Your task to perform on an android device: move a message to another label in the gmail app Image 0: 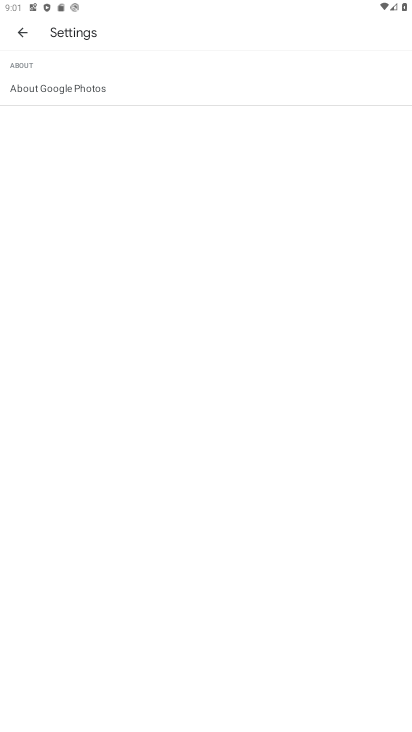
Step 0: press home button
Your task to perform on an android device: move a message to another label in the gmail app Image 1: 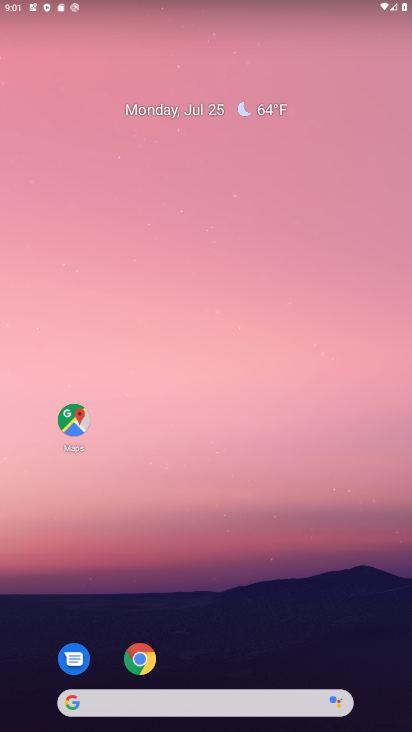
Step 1: drag from (320, 631) to (328, 98)
Your task to perform on an android device: move a message to another label in the gmail app Image 2: 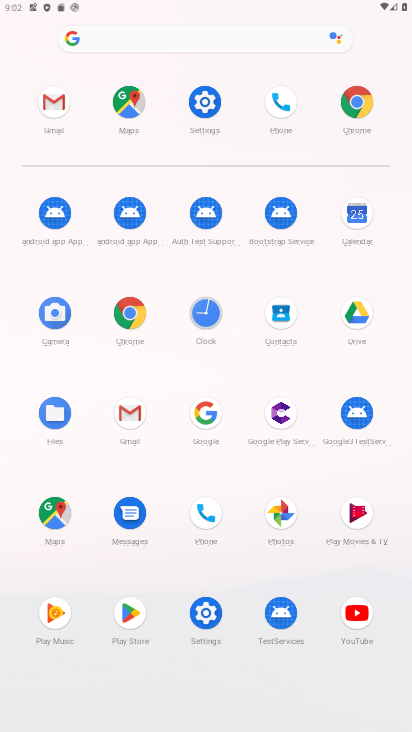
Step 2: click (132, 416)
Your task to perform on an android device: move a message to another label in the gmail app Image 3: 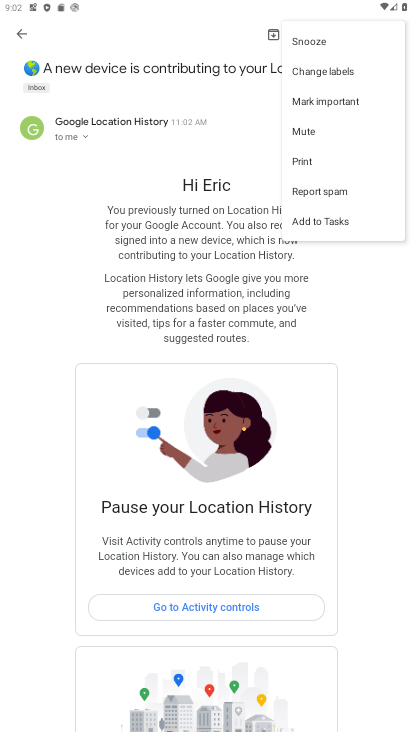
Step 3: click (70, 258)
Your task to perform on an android device: move a message to another label in the gmail app Image 4: 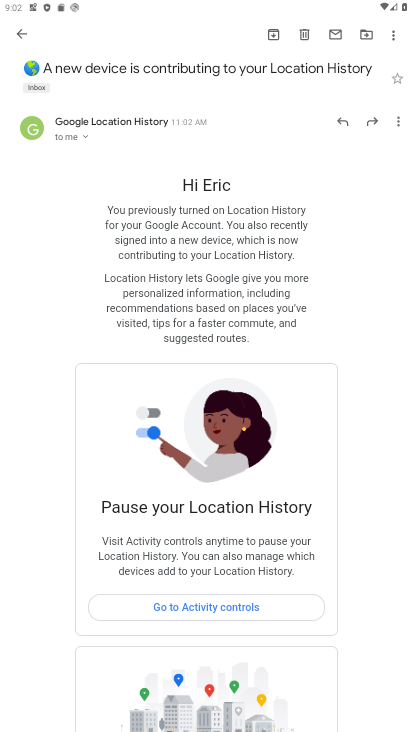
Step 4: click (17, 29)
Your task to perform on an android device: move a message to another label in the gmail app Image 5: 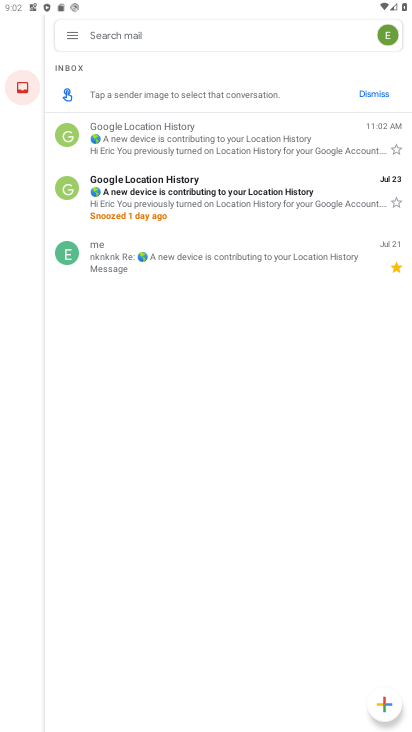
Step 5: click (140, 193)
Your task to perform on an android device: move a message to another label in the gmail app Image 6: 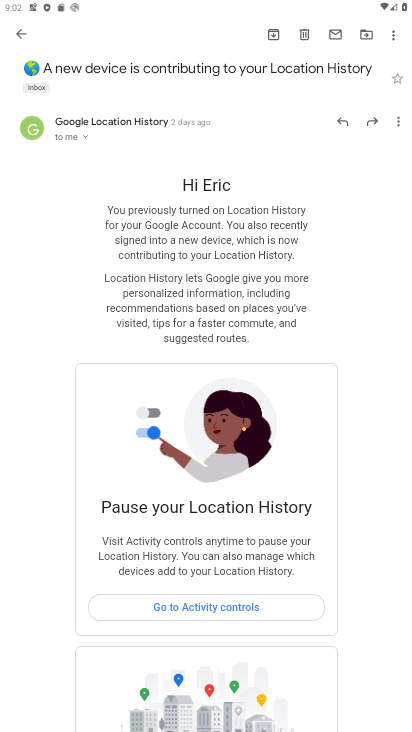
Step 6: click (395, 33)
Your task to perform on an android device: move a message to another label in the gmail app Image 7: 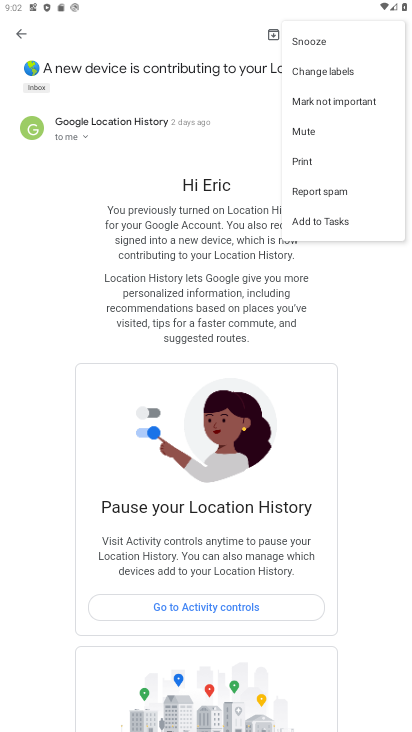
Step 7: click (206, 143)
Your task to perform on an android device: move a message to another label in the gmail app Image 8: 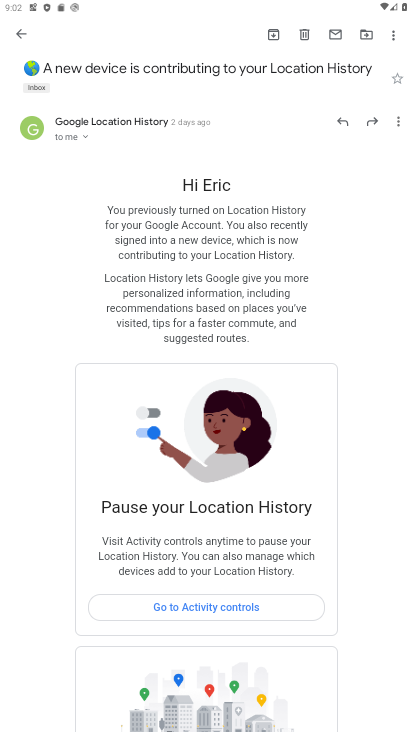
Step 8: click (85, 140)
Your task to perform on an android device: move a message to another label in the gmail app Image 9: 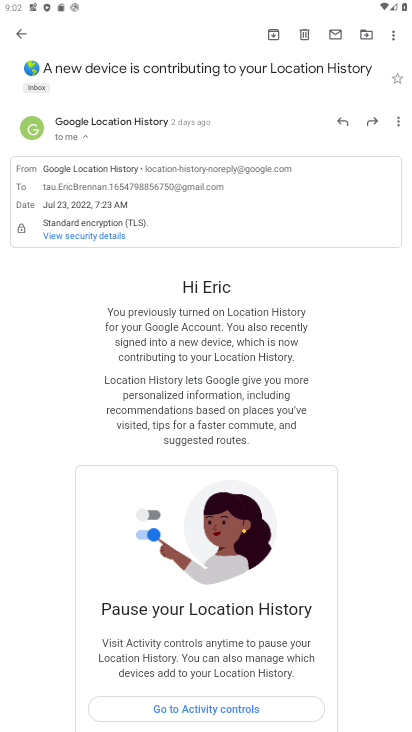
Step 9: click (85, 140)
Your task to perform on an android device: move a message to another label in the gmail app Image 10: 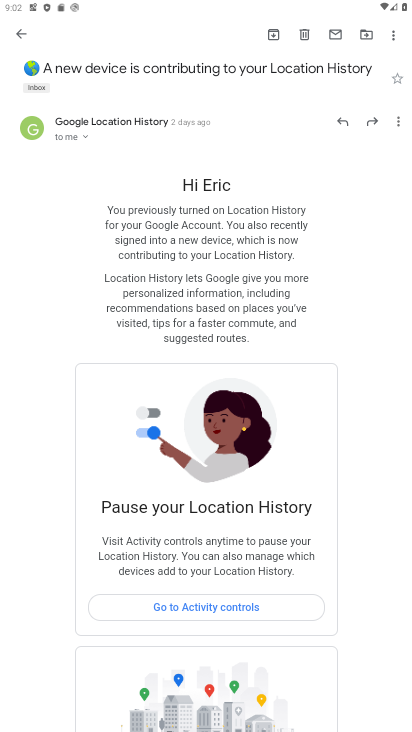
Step 10: click (35, 83)
Your task to perform on an android device: move a message to another label in the gmail app Image 11: 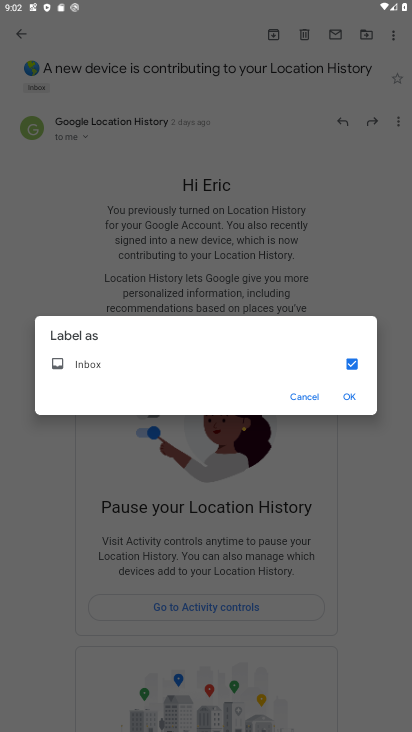
Step 11: click (75, 161)
Your task to perform on an android device: move a message to another label in the gmail app Image 12: 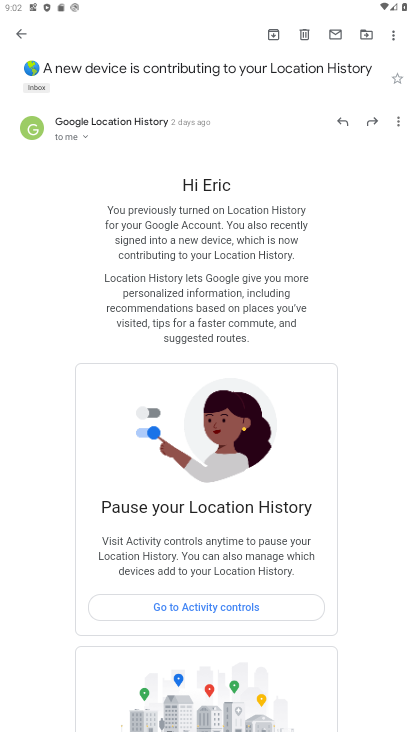
Step 12: click (394, 123)
Your task to perform on an android device: move a message to another label in the gmail app Image 13: 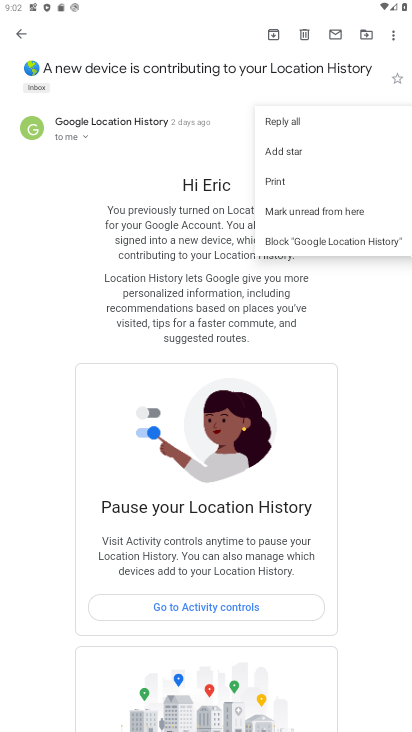
Step 13: task complete